Your task to perform on an android device: Open the web browser Image 0: 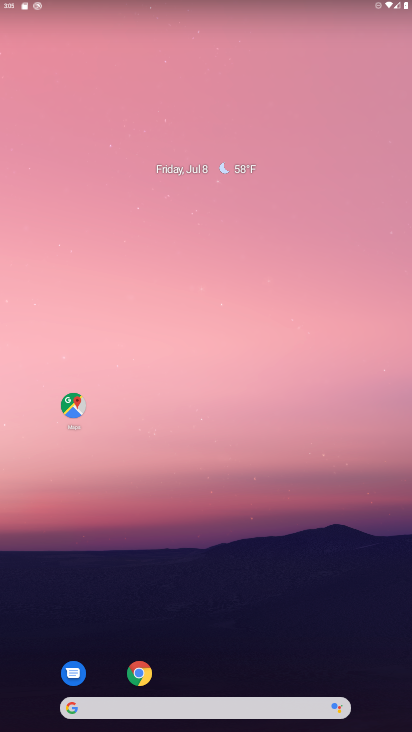
Step 0: drag from (205, 698) to (201, 400)
Your task to perform on an android device: Open the web browser Image 1: 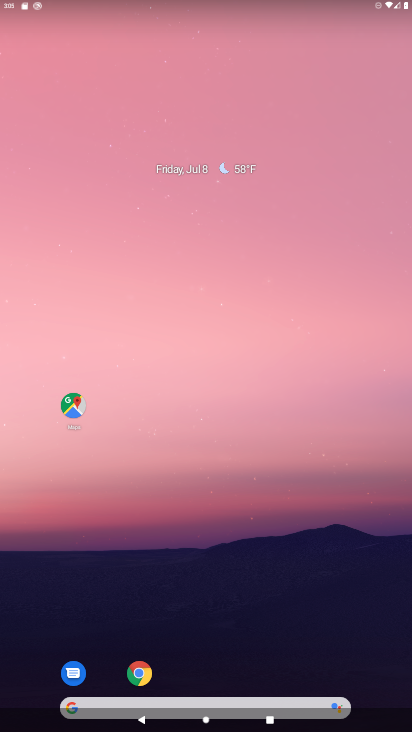
Step 1: drag from (206, 598) to (181, 363)
Your task to perform on an android device: Open the web browser Image 2: 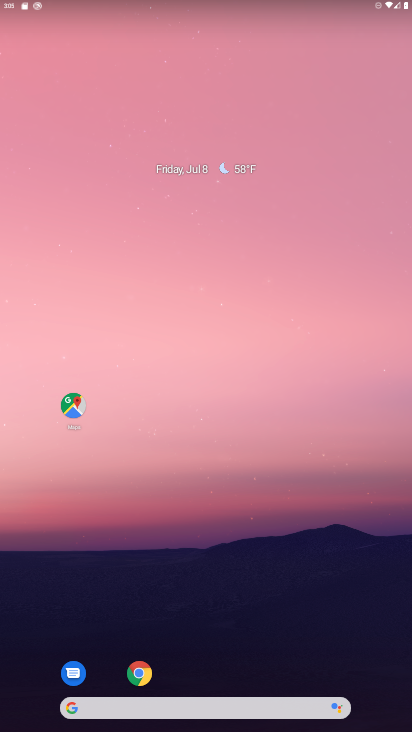
Step 2: drag from (208, 673) to (166, 268)
Your task to perform on an android device: Open the web browser Image 3: 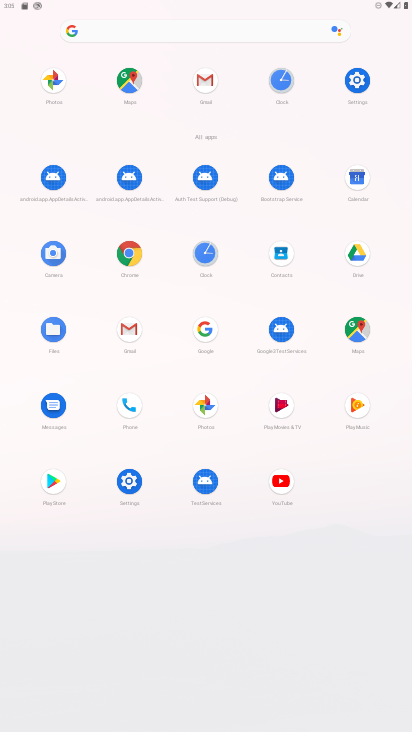
Step 3: click (124, 259)
Your task to perform on an android device: Open the web browser Image 4: 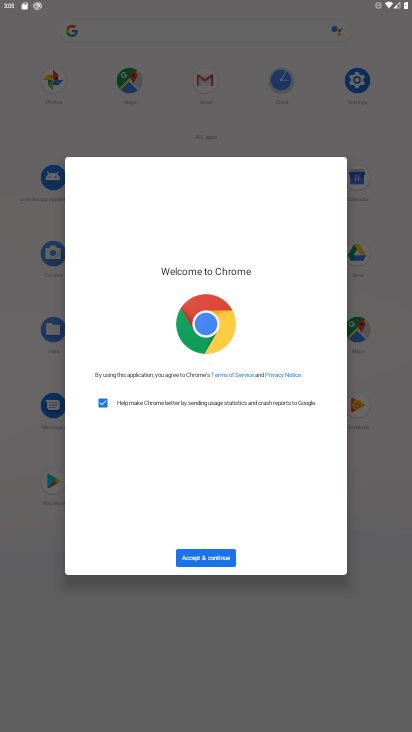
Step 4: click (209, 551)
Your task to perform on an android device: Open the web browser Image 5: 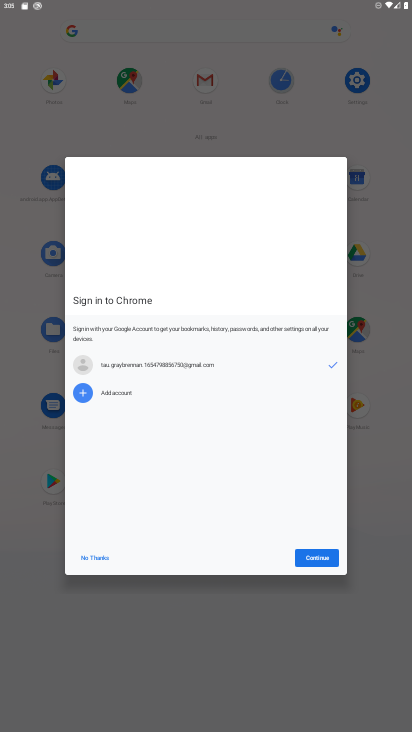
Step 5: click (317, 553)
Your task to perform on an android device: Open the web browser Image 6: 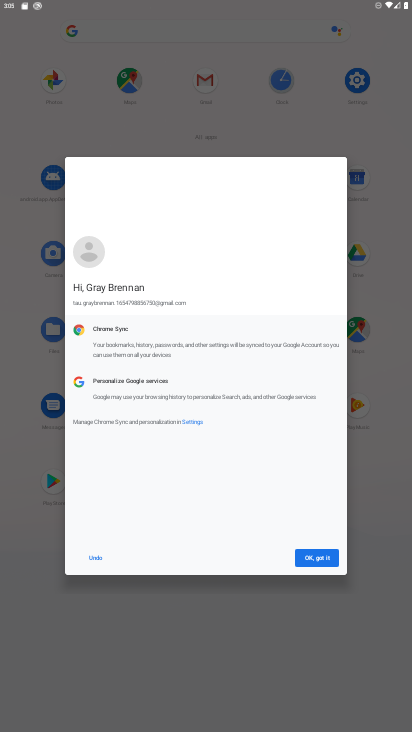
Step 6: click (321, 558)
Your task to perform on an android device: Open the web browser Image 7: 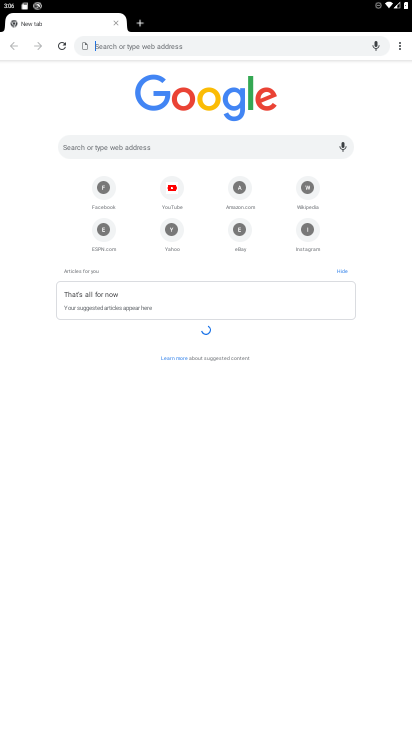
Step 7: task complete